Your task to perform on an android device: Search for Mexican restaurants on Maps Image 0: 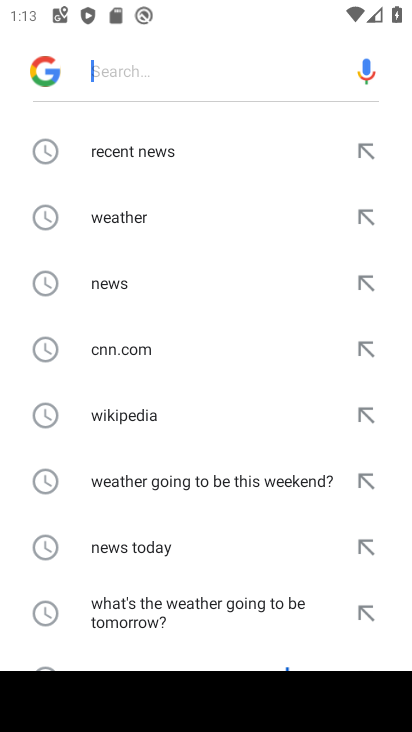
Step 0: press home button
Your task to perform on an android device: Search for Mexican restaurants on Maps Image 1: 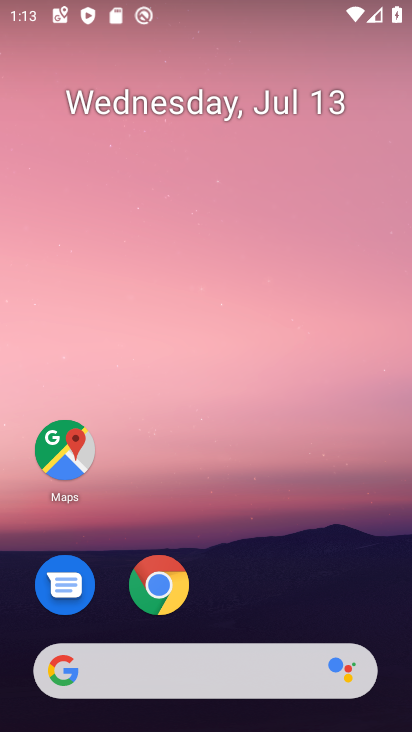
Step 1: click (68, 456)
Your task to perform on an android device: Search for Mexican restaurants on Maps Image 2: 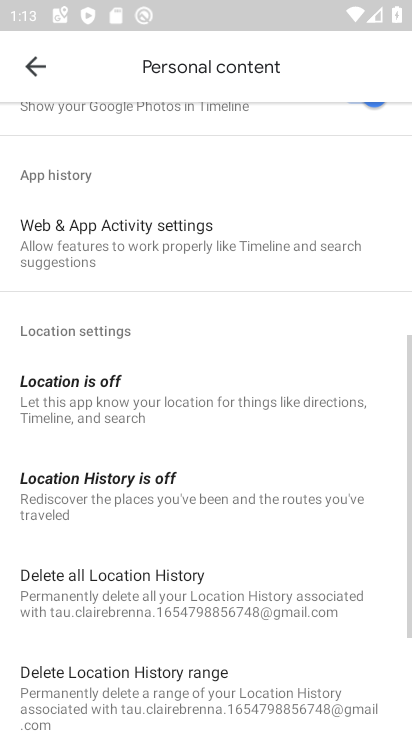
Step 2: click (34, 55)
Your task to perform on an android device: Search for Mexican restaurants on Maps Image 3: 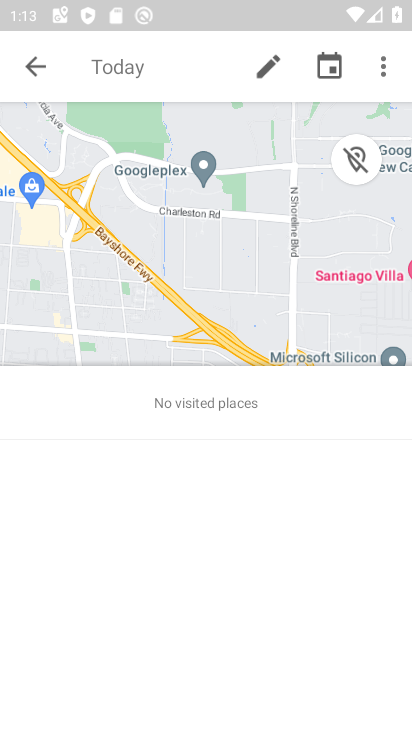
Step 3: click (33, 55)
Your task to perform on an android device: Search for Mexican restaurants on Maps Image 4: 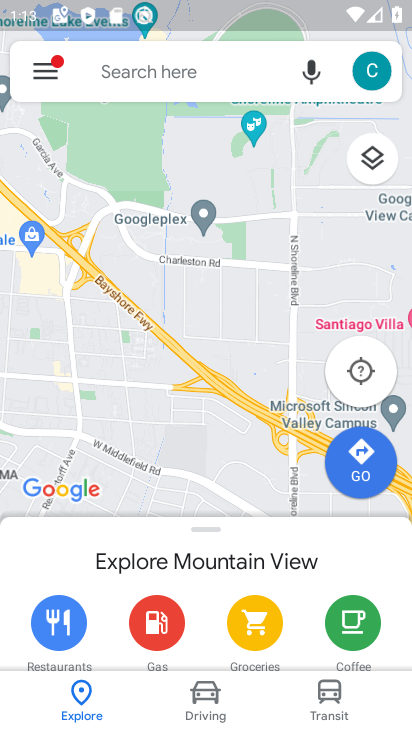
Step 4: click (170, 76)
Your task to perform on an android device: Search for Mexican restaurants on Maps Image 5: 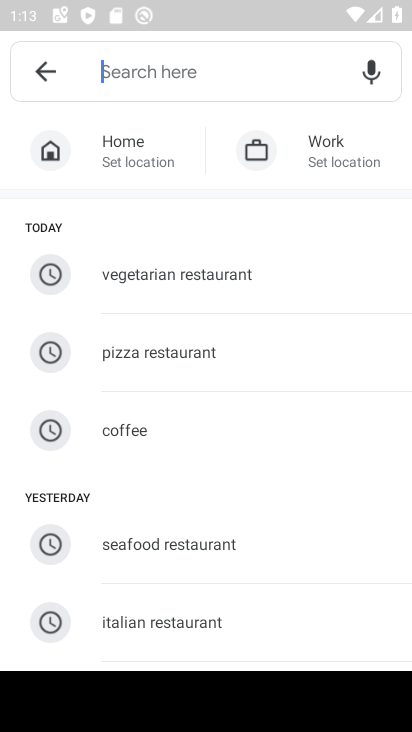
Step 5: drag from (226, 562) to (255, 200)
Your task to perform on an android device: Search for Mexican restaurants on Maps Image 6: 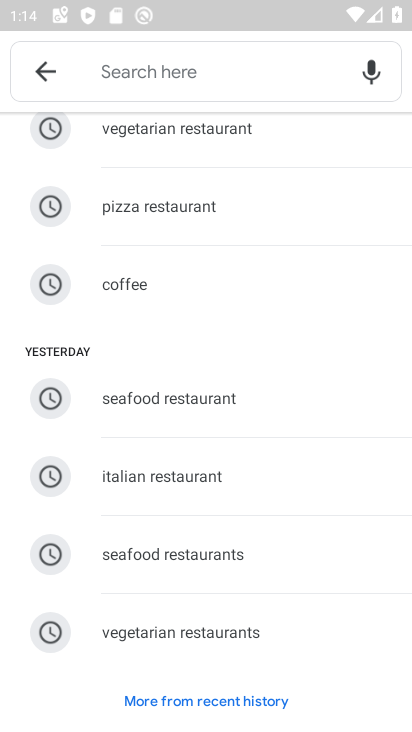
Step 6: type "Mexican restaurants"
Your task to perform on an android device: Search for Mexican restaurants on Maps Image 7: 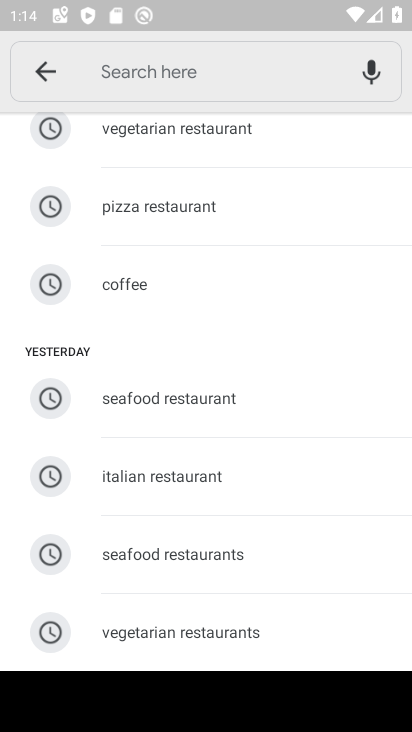
Step 7: click (167, 66)
Your task to perform on an android device: Search for Mexican restaurants on Maps Image 8: 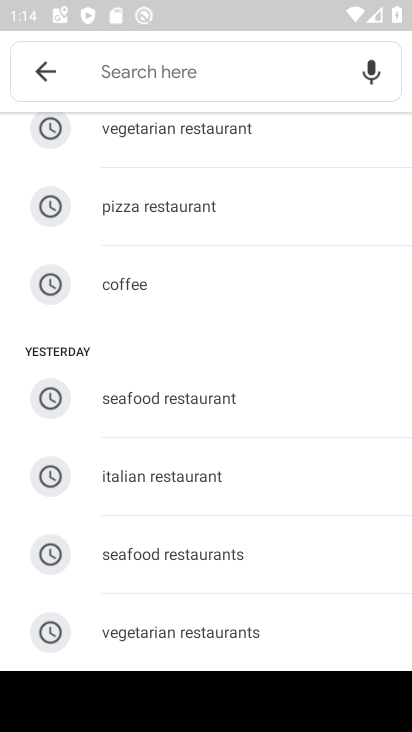
Step 8: type "Mexican restaurants"
Your task to perform on an android device: Search for Mexican restaurants on Maps Image 9: 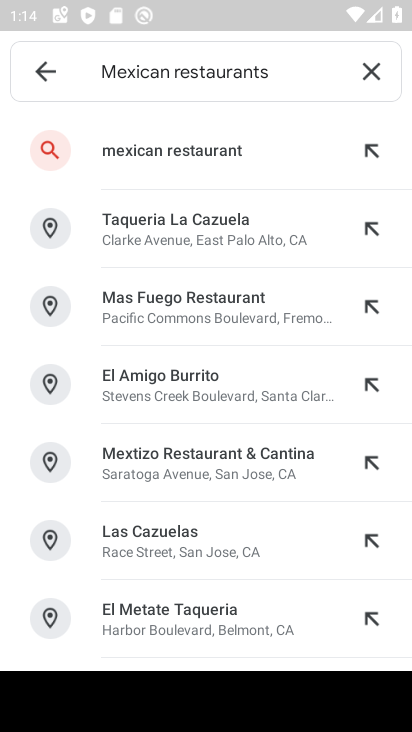
Step 9: click (158, 150)
Your task to perform on an android device: Search for Mexican restaurants on Maps Image 10: 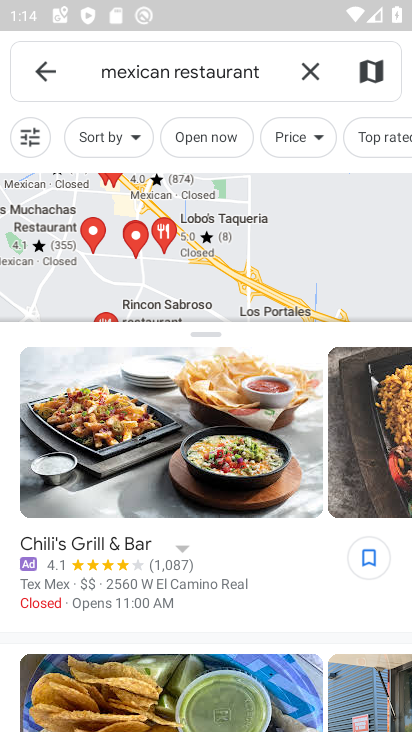
Step 10: task complete